Your task to perform on an android device: Open CNN.com Image 0: 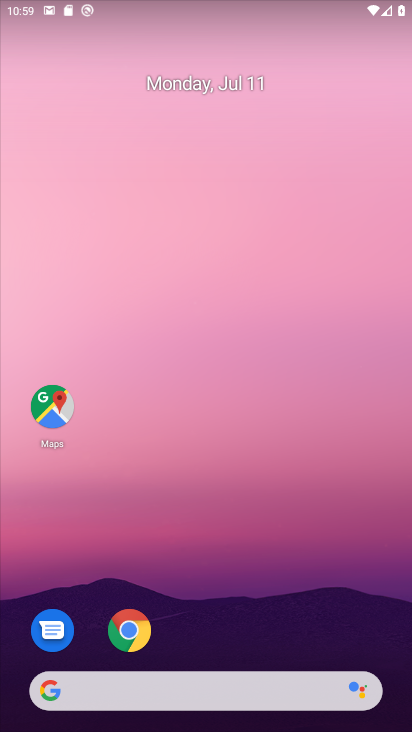
Step 0: drag from (251, 593) to (241, 304)
Your task to perform on an android device: Open CNN.com Image 1: 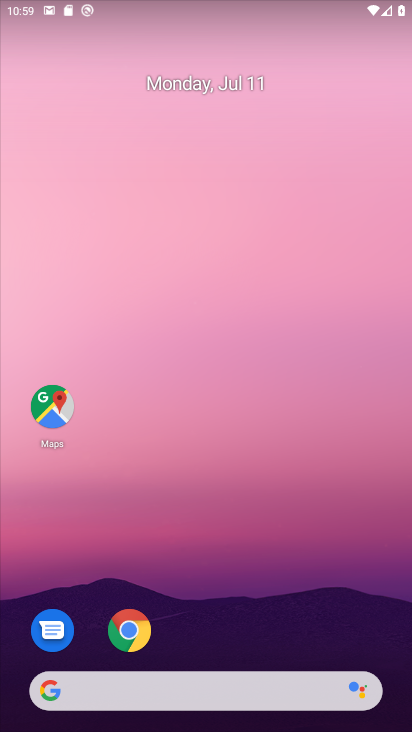
Step 1: drag from (258, 550) to (270, 189)
Your task to perform on an android device: Open CNN.com Image 2: 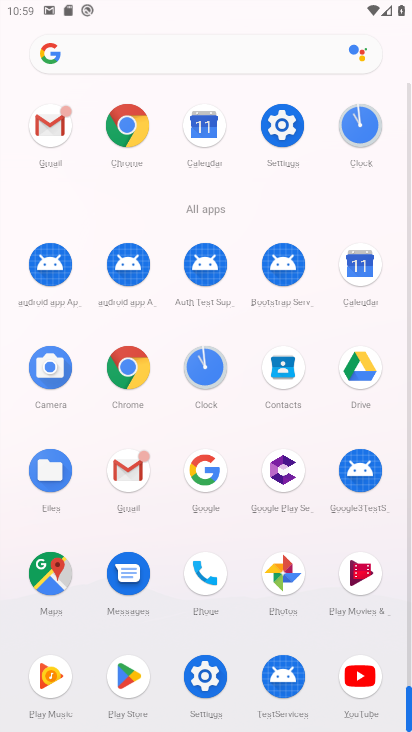
Step 2: click (139, 148)
Your task to perform on an android device: Open CNN.com Image 3: 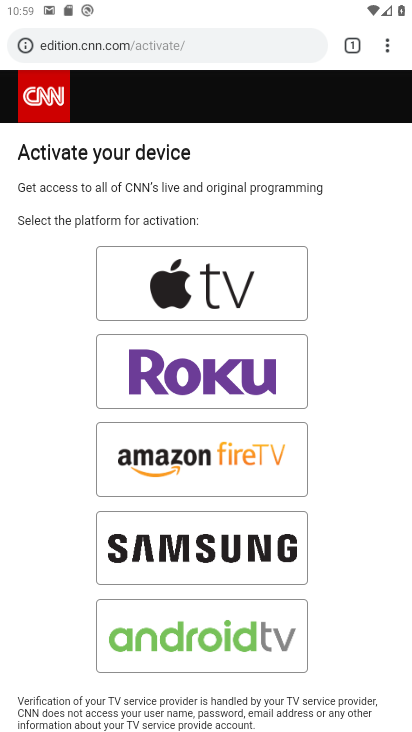
Step 3: click (197, 45)
Your task to perform on an android device: Open CNN.com Image 4: 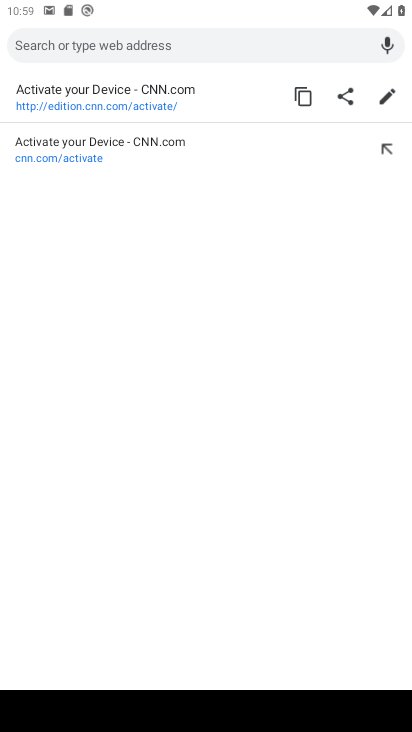
Step 4: click (97, 153)
Your task to perform on an android device: Open CNN.com Image 5: 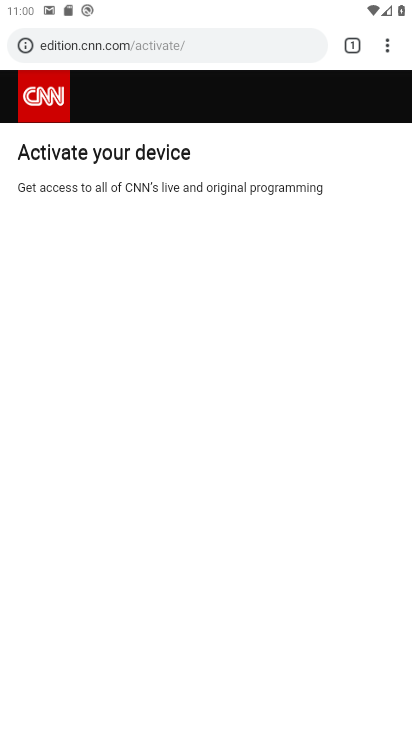
Step 5: task complete